Your task to perform on an android device: What's the weather? Image 0: 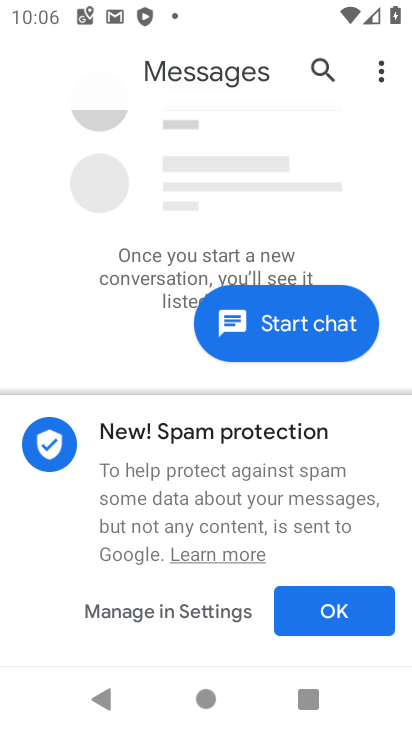
Step 0: drag from (166, 727) to (179, 267)
Your task to perform on an android device: What's the weather? Image 1: 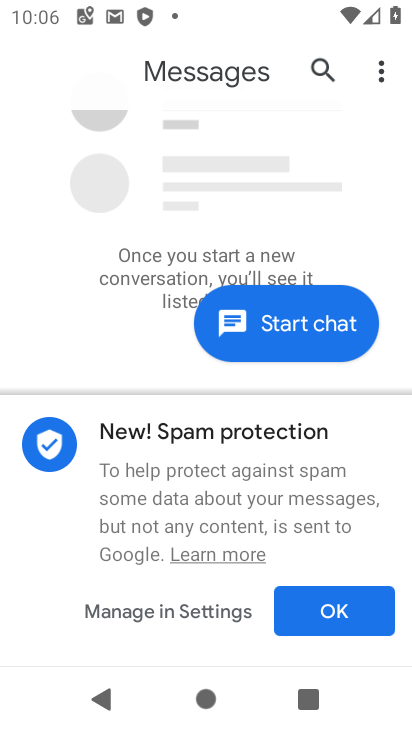
Step 1: press home button
Your task to perform on an android device: What's the weather? Image 2: 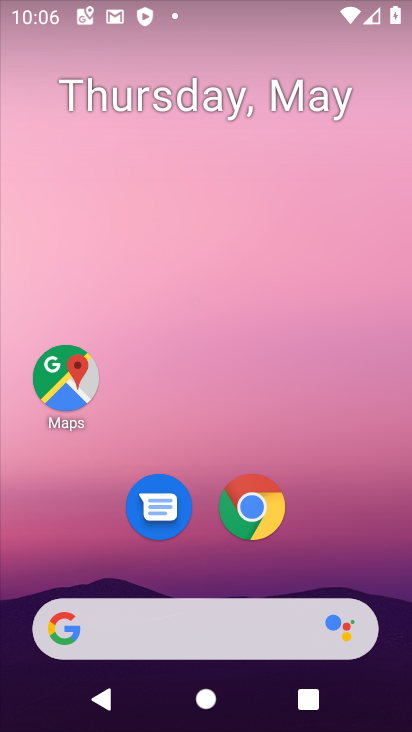
Step 2: click (174, 620)
Your task to perform on an android device: What's the weather? Image 3: 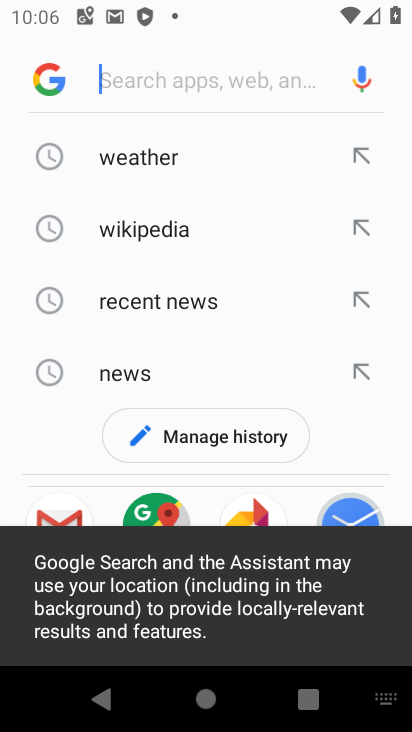
Step 3: click (186, 164)
Your task to perform on an android device: What's the weather? Image 4: 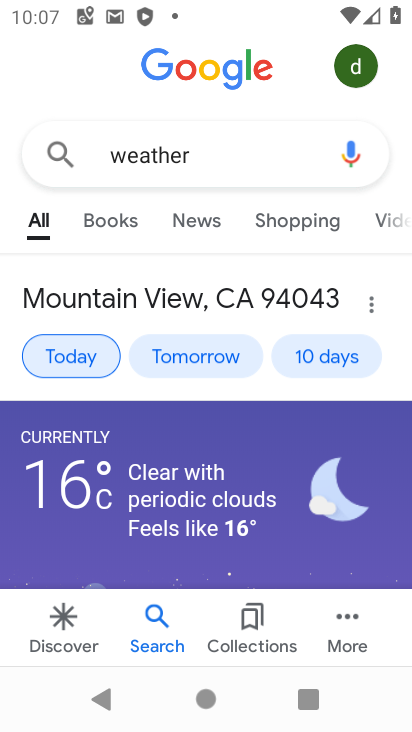
Step 4: task complete